Your task to perform on an android device: turn pop-ups on in chrome Image 0: 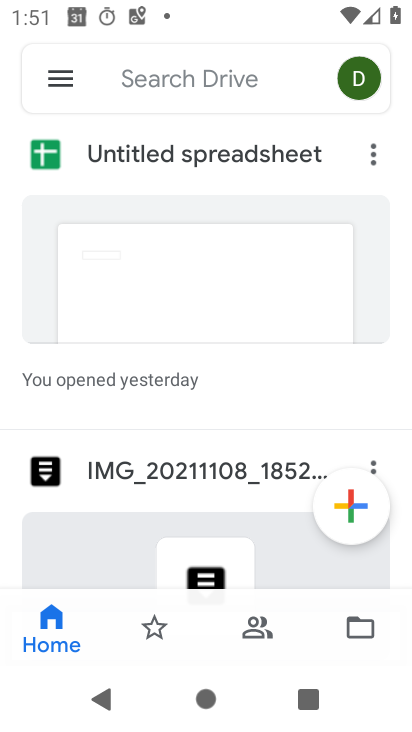
Step 0: press home button
Your task to perform on an android device: turn pop-ups on in chrome Image 1: 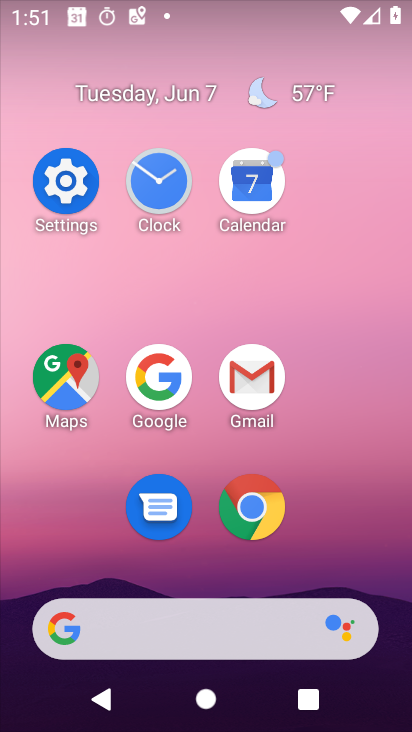
Step 1: click (258, 505)
Your task to perform on an android device: turn pop-ups on in chrome Image 2: 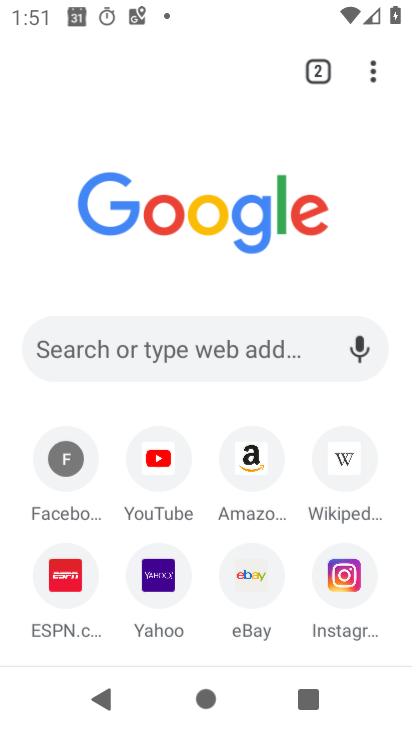
Step 2: click (375, 60)
Your task to perform on an android device: turn pop-ups on in chrome Image 3: 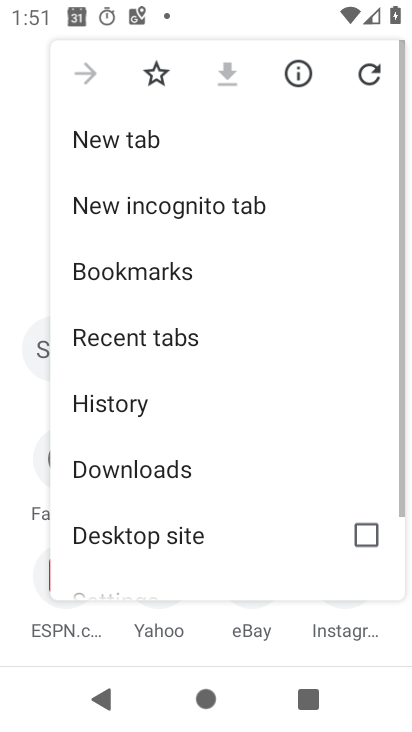
Step 3: drag from (230, 452) to (226, 98)
Your task to perform on an android device: turn pop-ups on in chrome Image 4: 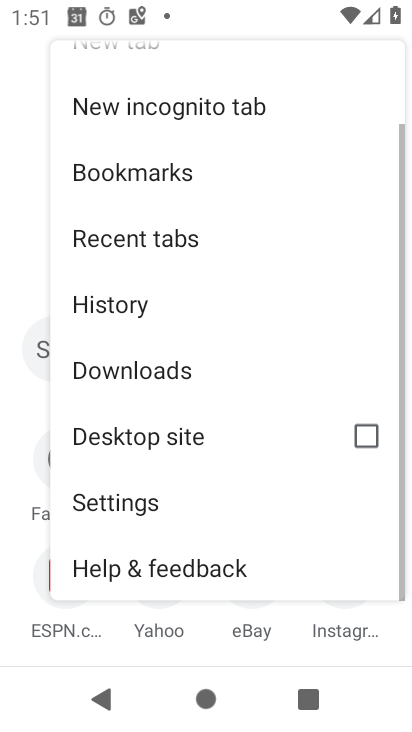
Step 4: click (129, 493)
Your task to perform on an android device: turn pop-ups on in chrome Image 5: 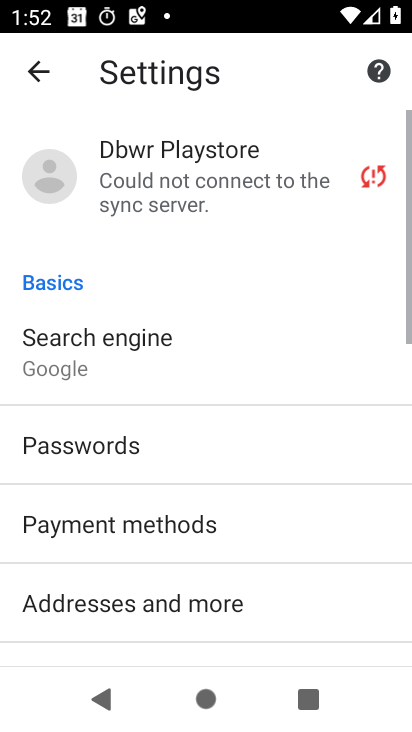
Step 5: drag from (129, 489) to (203, 96)
Your task to perform on an android device: turn pop-ups on in chrome Image 6: 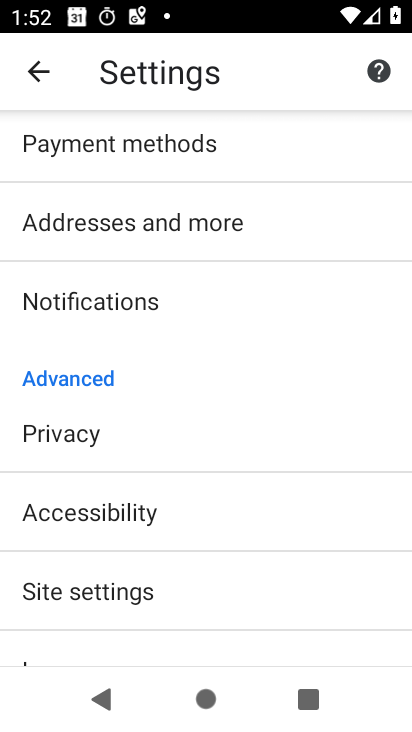
Step 6: click (143, 595)
Your task to perform on an android device: turn pop-ups on in chrome Image 7: 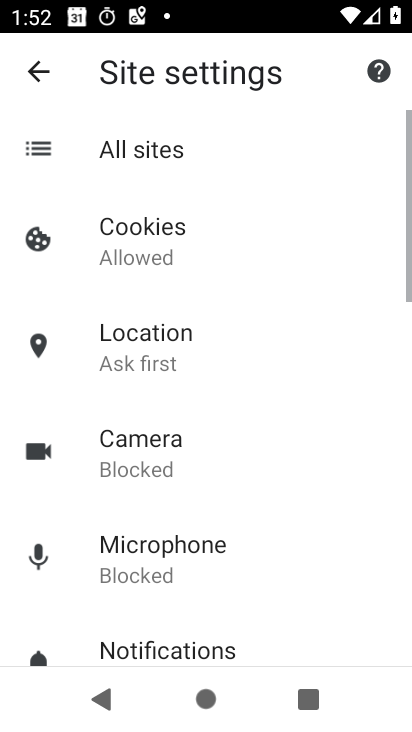
Step 7: drag from (143, 595) to (193, 137)
Your task to perform on an android device: turn pop-ups on in chrome Image 8: 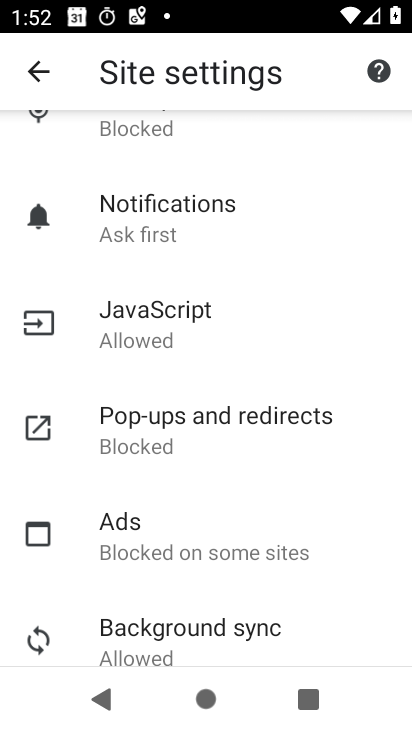
Step 8: click (196, 431)
Your task to perform on an android device: turn pop-ups on in chrome Image 9: 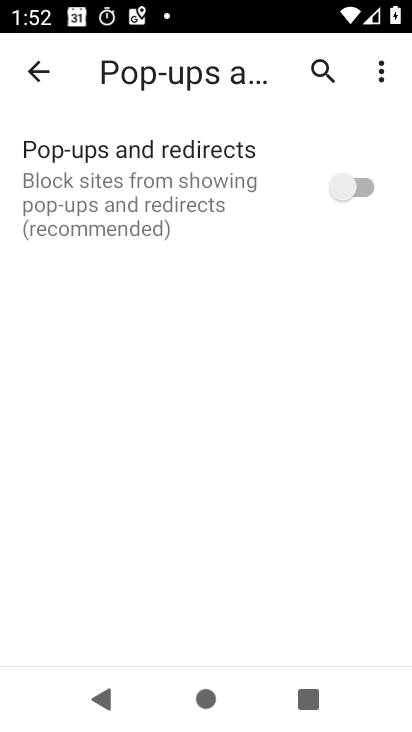
Step 9: click (316, 189)
Your task to perform on an android device: turn pop-ups on in chrome Image 10: 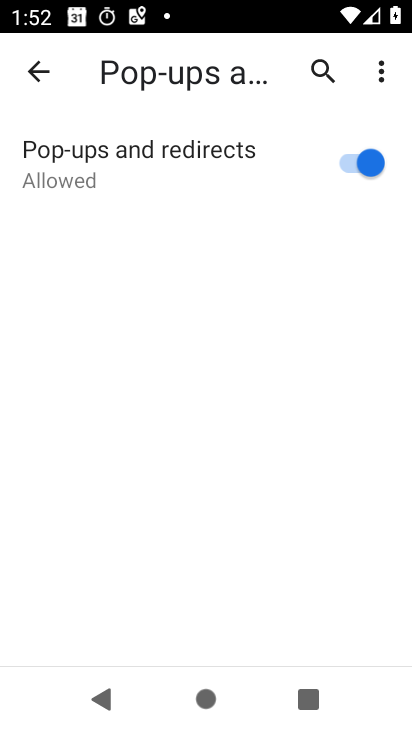
Step 10: task complete